Your task to perform on an android device: set default search engine in the chrome app Image 0: 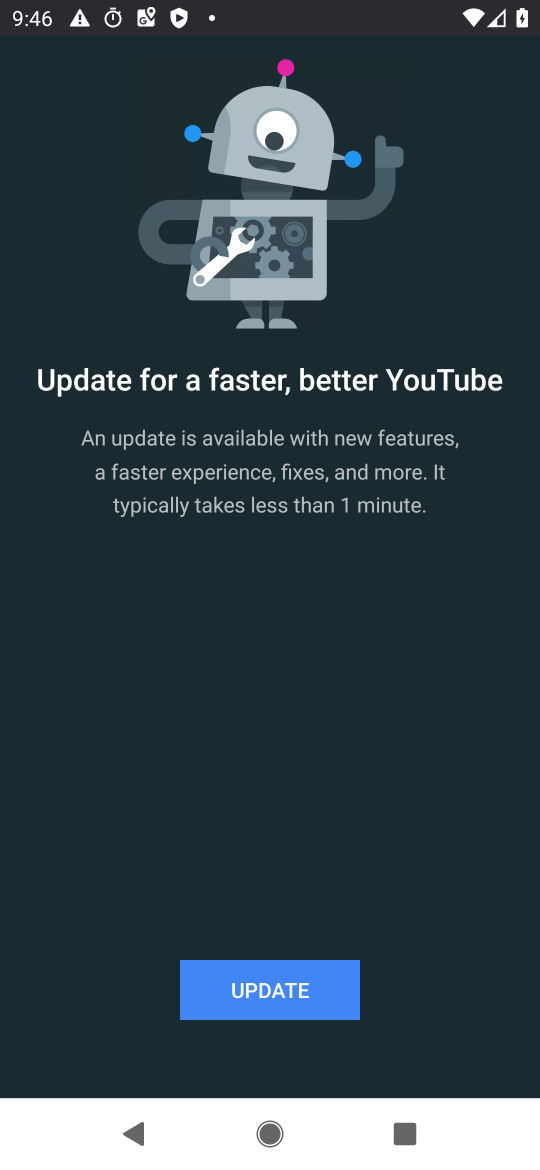
Step 0: press home button
Your task to perform on an android device: set default search engine in the chrome app Image 1: 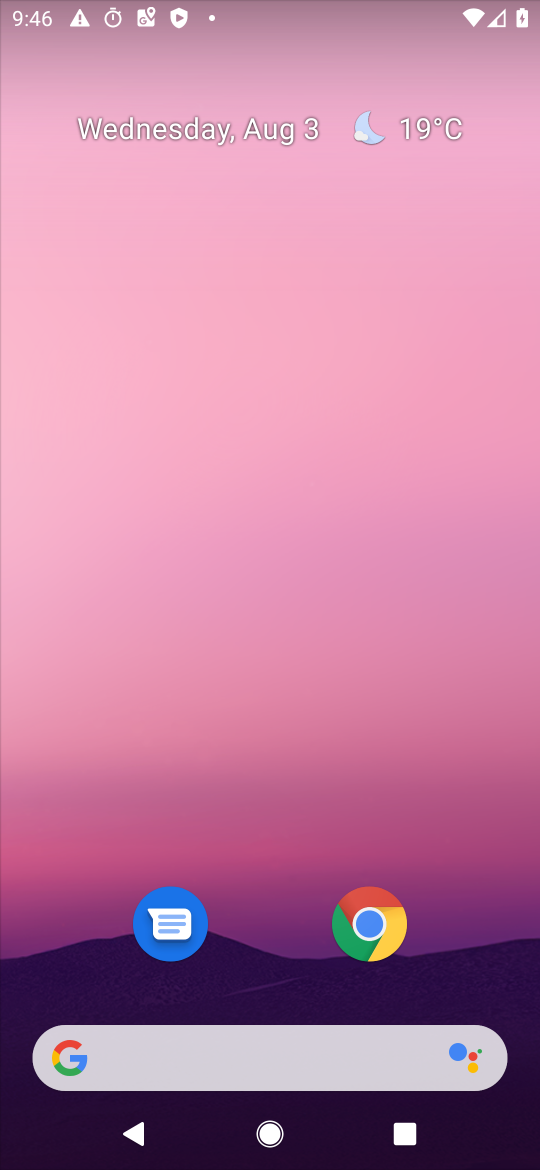
Step 1: click (366, 914)
Your task to perform on an android device: set default search engine in the chrome app Image 2: 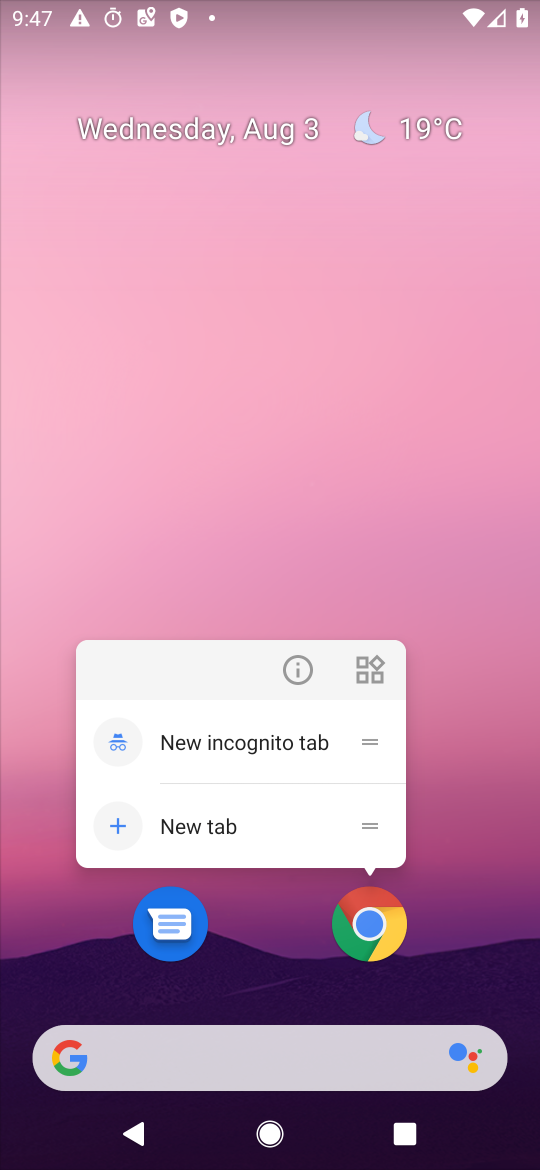
Step 2: click (429, 963)
Your task to perform on an android device: set default search engine in the chrome app Image 3: 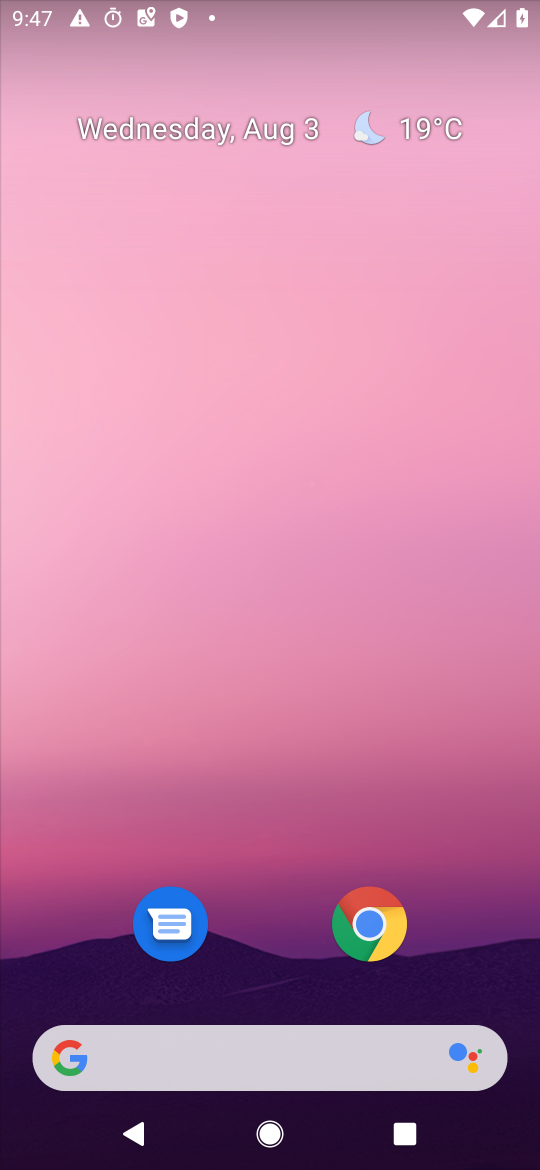
Step 3: drag from (450, 992) to (449, 63)
Your task to perform on an android device: set default search engine in the chrome app Image 4: 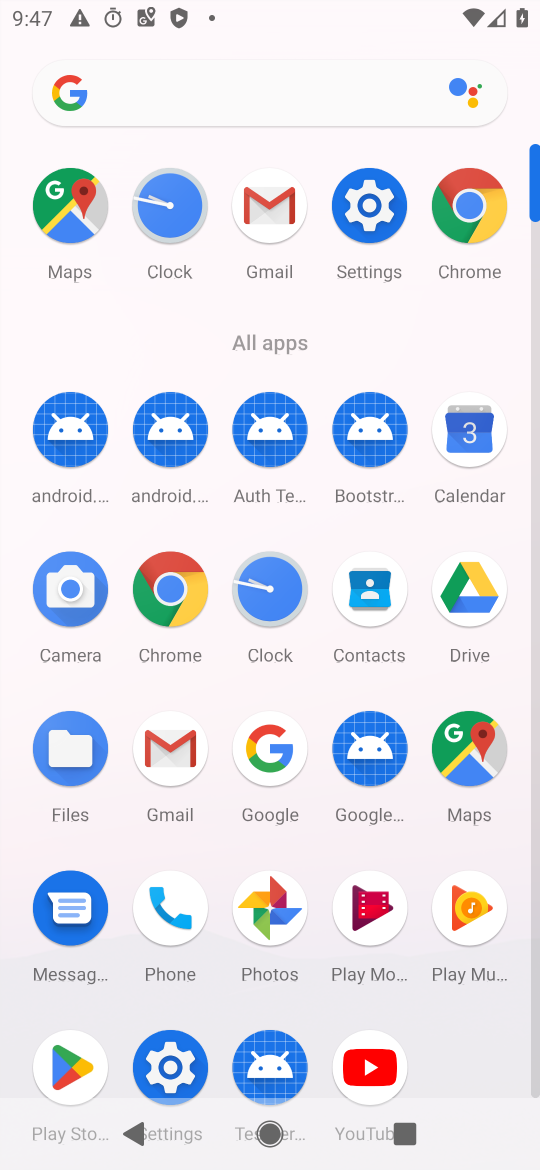
Step 4: click (167, 579)
Your task to perform on an android device: set default search engine in the chrome app Image 5: 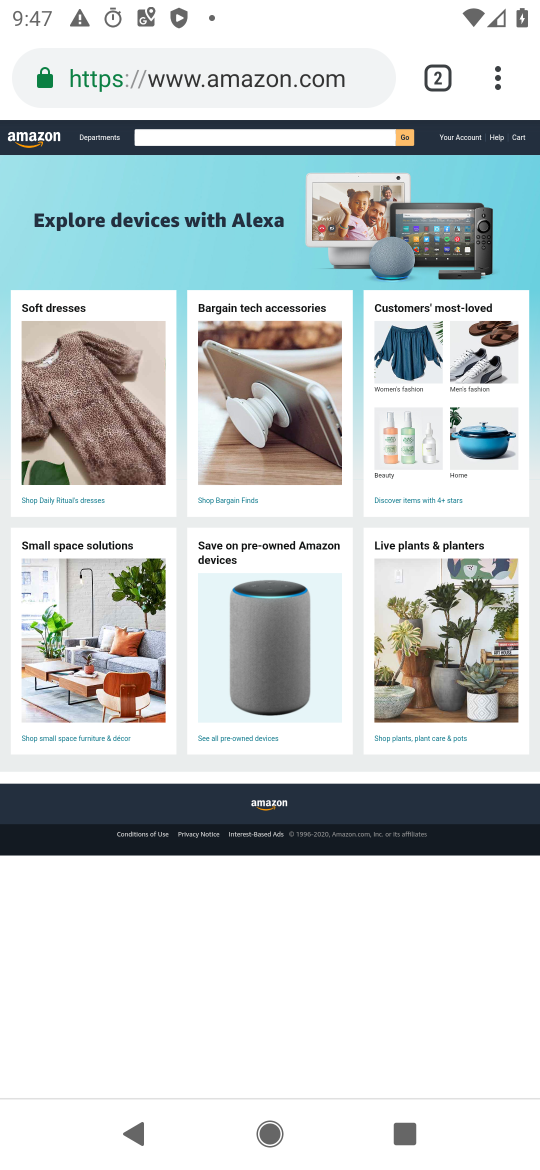
Step 5: click (499, 71)
Your task to perform on an android device: set default search engine in the chrome app Image 6: 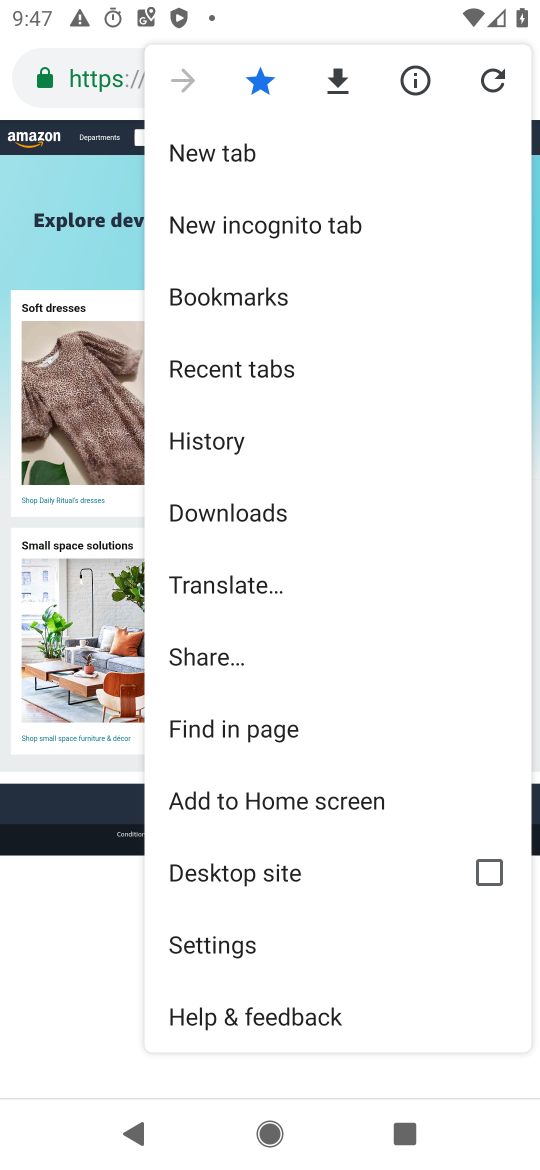
Step 6: click (258, 943)
Your task to perform on an android device: set default search engine in the chrome app Image 7: 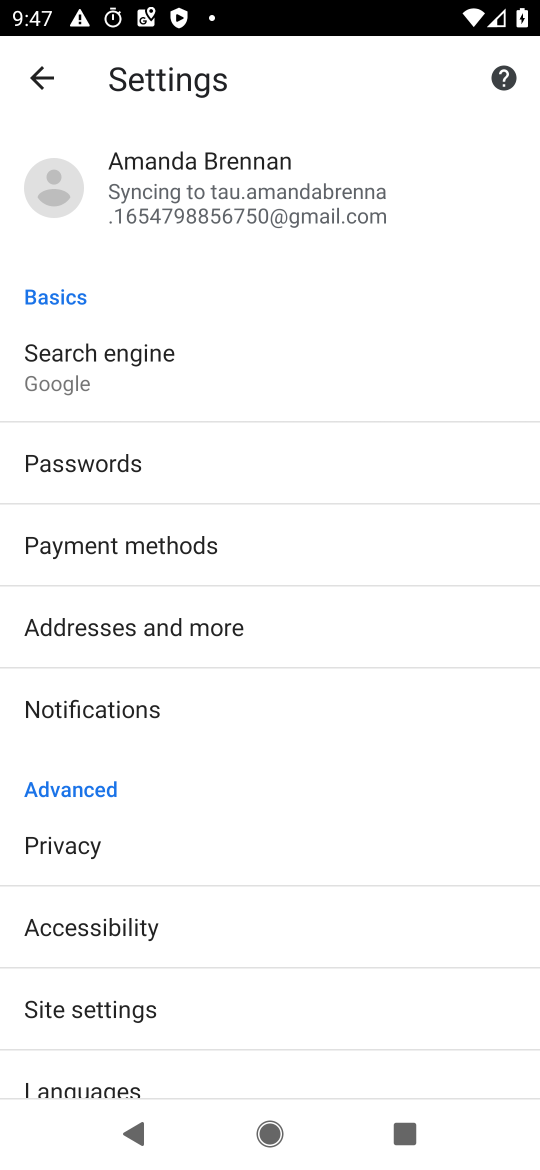
Step 7: click (139, 376)
Your task to perform on an android device: set default search engine in the chrome app Image 8: 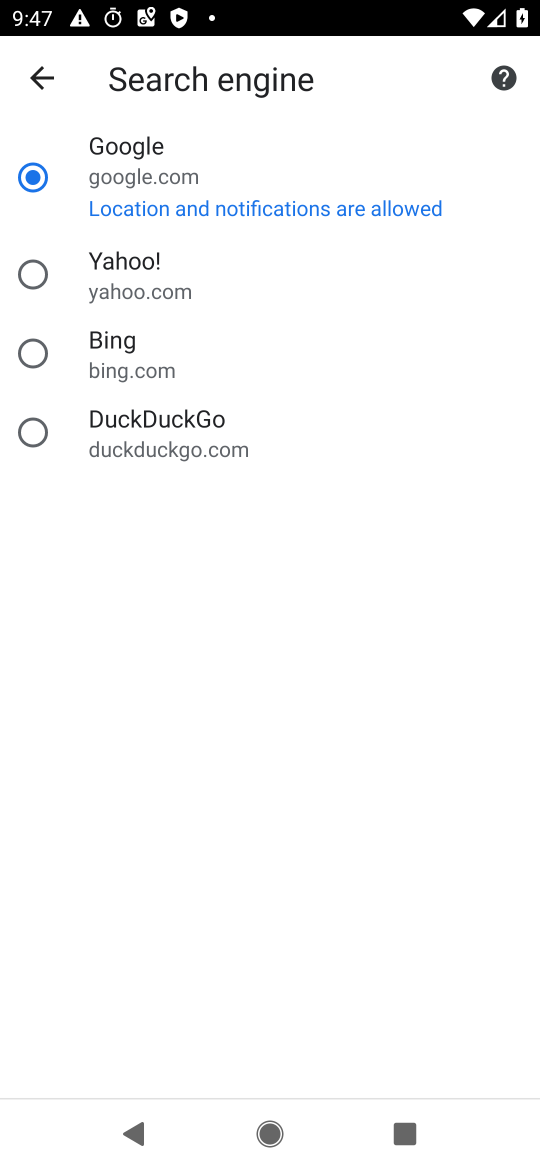
Step 8: click (34, 349)
Your task to perform on an android device: set default search engine in the chrome app Image 9: 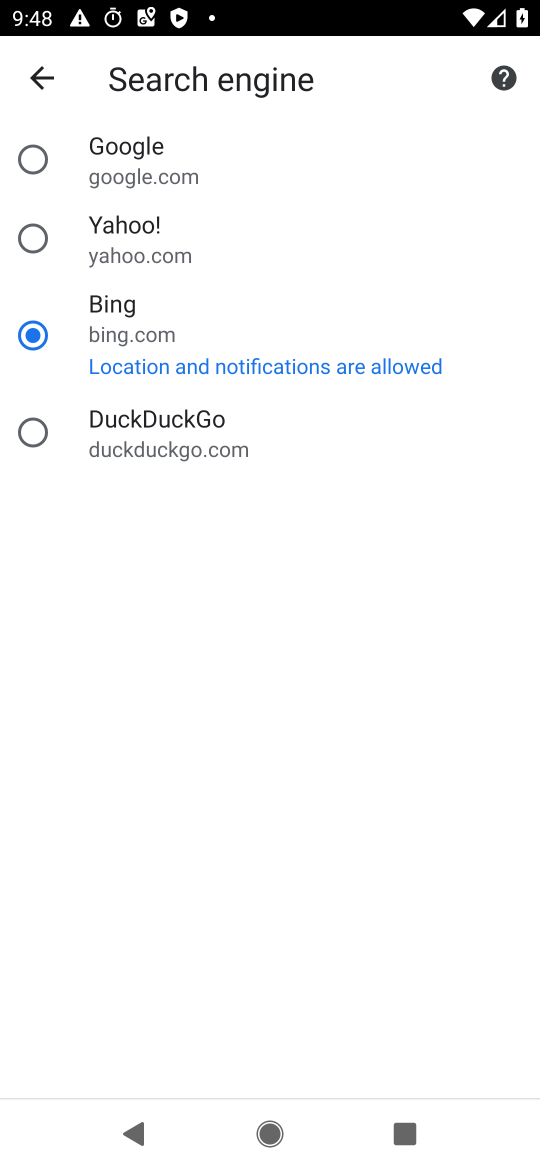
Step 9: task complete